Your task to perform on an android device: Open the phone app and click the voicemail tab. Image 0: 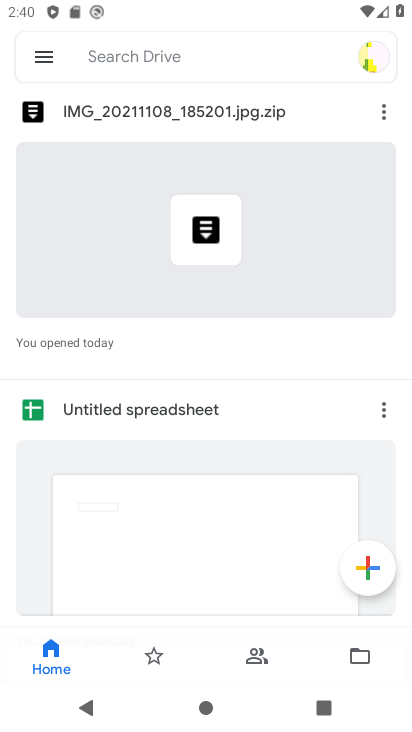
Step 0: press home button
Your task to perform on an android device: Open the phone app and click the voicemail tab. Image 1: 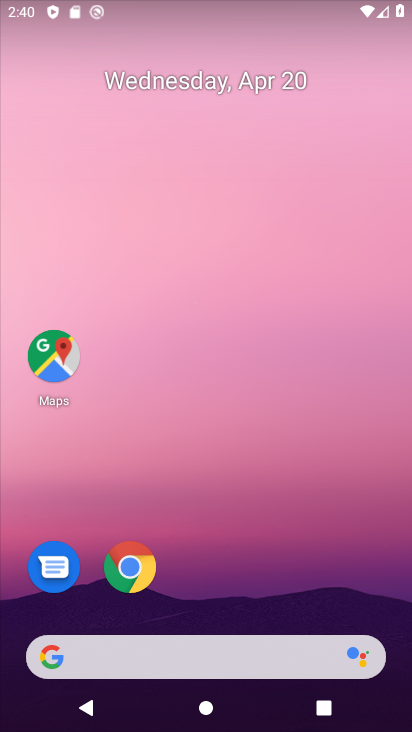
Step 1: drag from (297, 569) to (227, 171)
Your task to perform on an android device: Open the phone app and click the voicemail tab. Image 2: 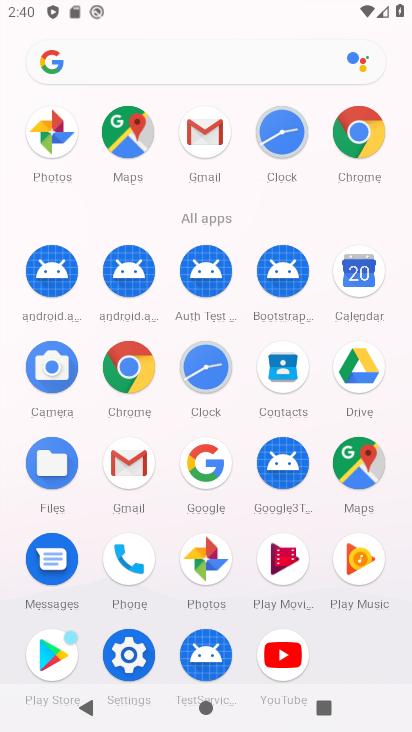
Step 2: click (131, 578)
Your task to perform on an android device: Open the phone app and click the voicemail tab. Image 3: 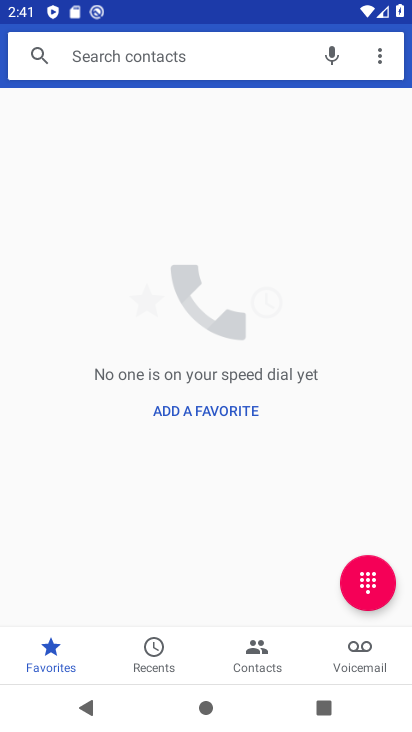
Step 3: click (342, 661)
Your task to perform on an android device: Open the phone app and click the voicemail tab. Image 4: 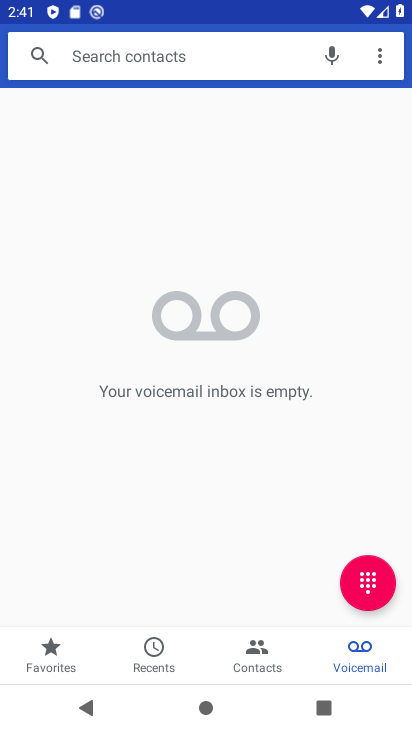
Step 4: task complete